Your task to perform on an android device: move an email to a new category in the gmail app Image 0: 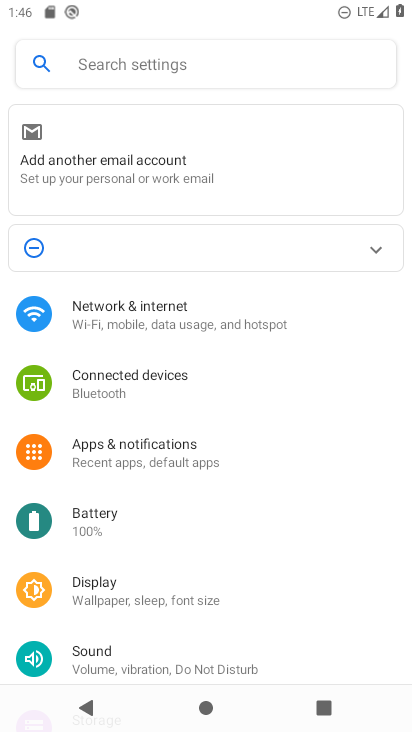
Step 0: press home button
Your task to perform on an android device: move an email to a new category in the gmail app Image 1: 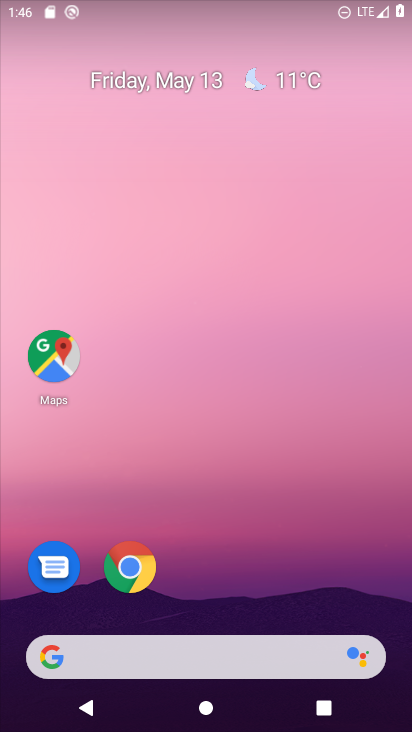
Step 1: drag from (217, 605) to (197, 107)
Your task to perform on an android device: move an email to a new category in the gmail app Image 2: 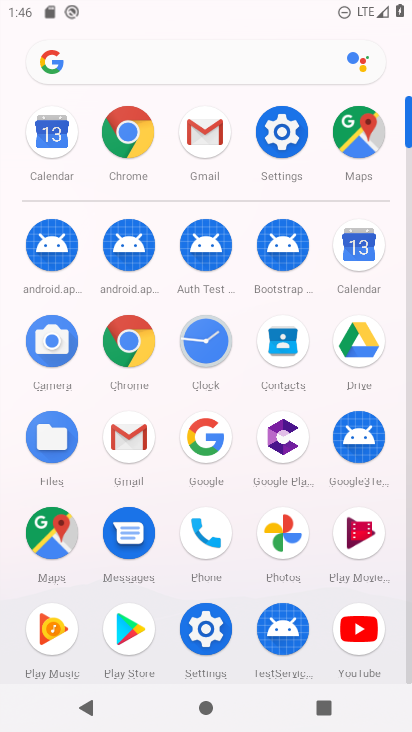
Step 2: click (204, 129)
Your task to perform on an android device: move an email to a new category in the gmail app Image 3: 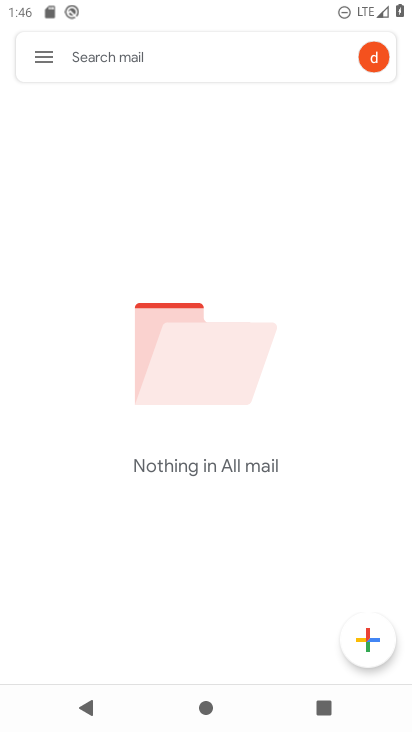
Step 3: task complete